Your task to perform on an android device: find which apps use the phone's location Image 0: 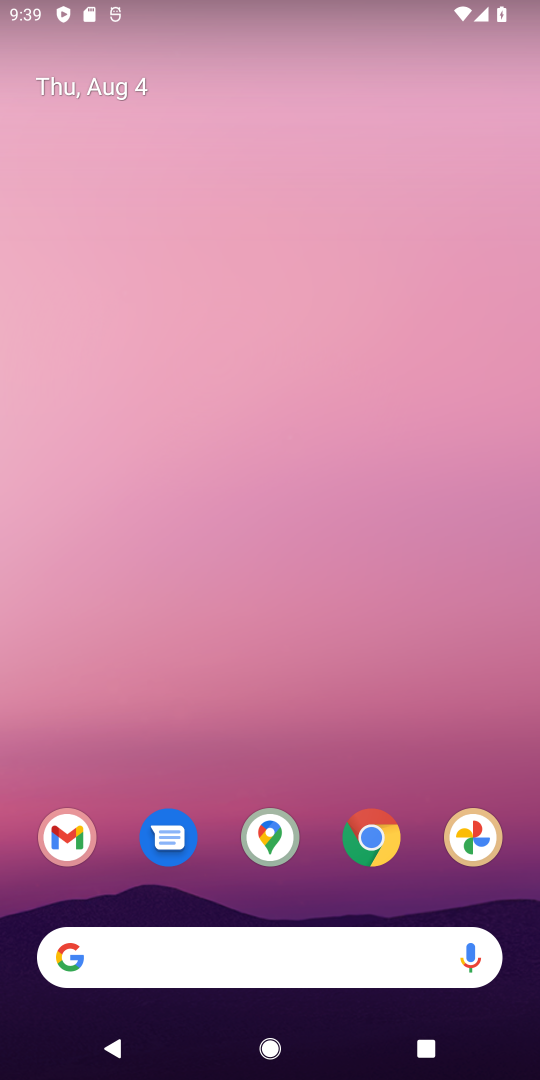
Step 0: drag from (462, 791) to (213, 47)
Your task to perform on an android device: find which apps use the phone's location Image 1: 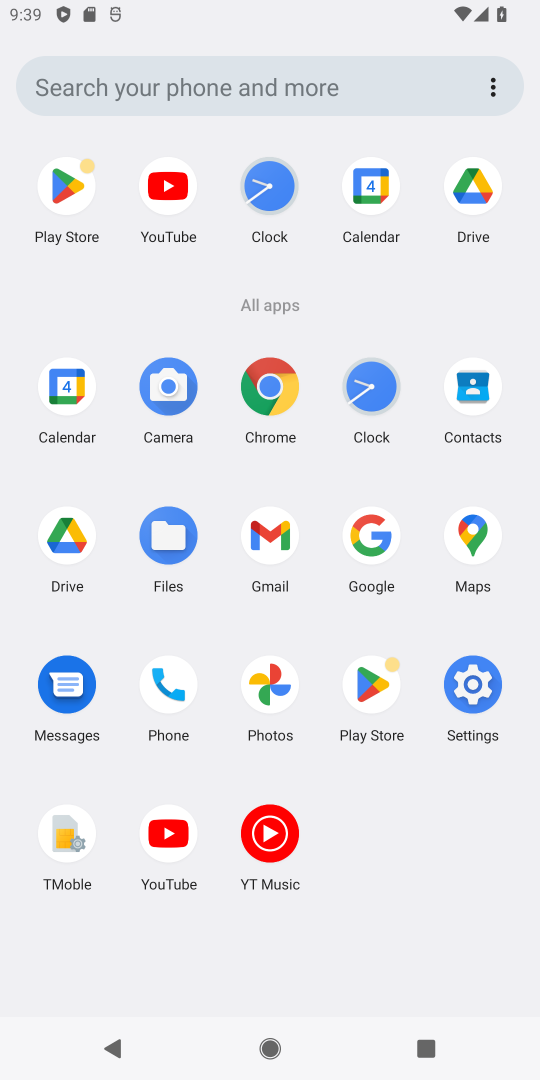
Step 1: click (467, 692)
Your task to perform on an android device: find which apps use the phone's location Image 2: 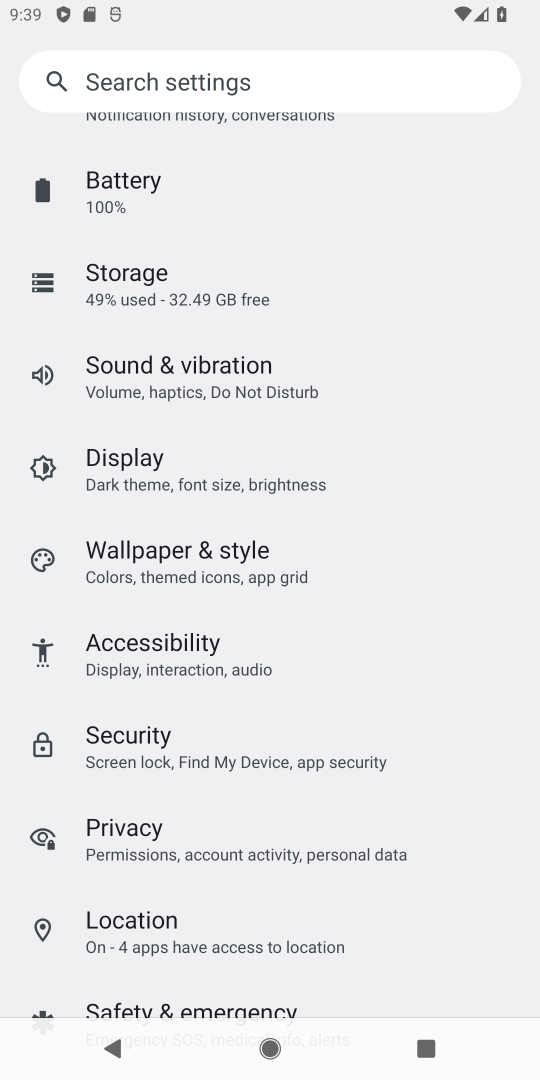
Step 2: click (148, 952)
Your task to perform on an android device: find which apps use the phone's location Image 3: 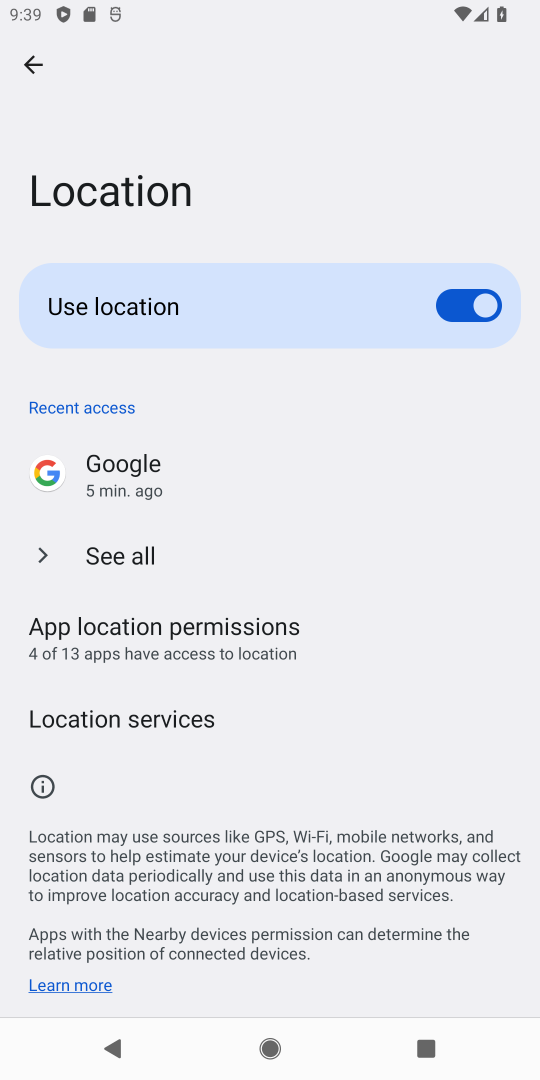
Step 3: click (216, 656)
Your task to perform on an android device: find which apps use the phone's location Image 4: 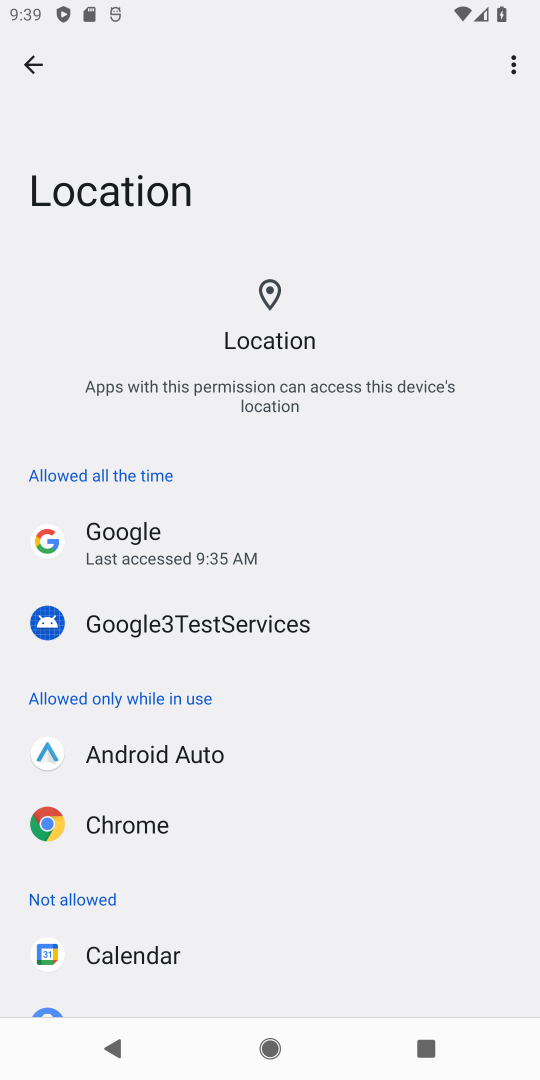
Step 4: drag from (127, 956) to (46, 371)
Your task to perform on an android device: find which apps use the phone's location Image 5: 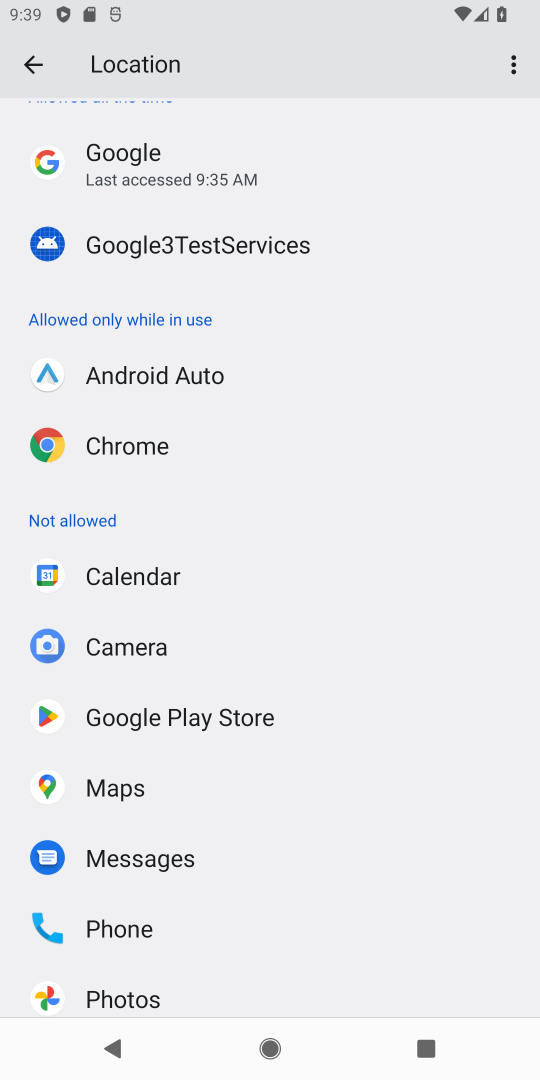
Step 5: click (90, 948)
Your task to perform on an android device: find which apps use the phone's location Image 6: 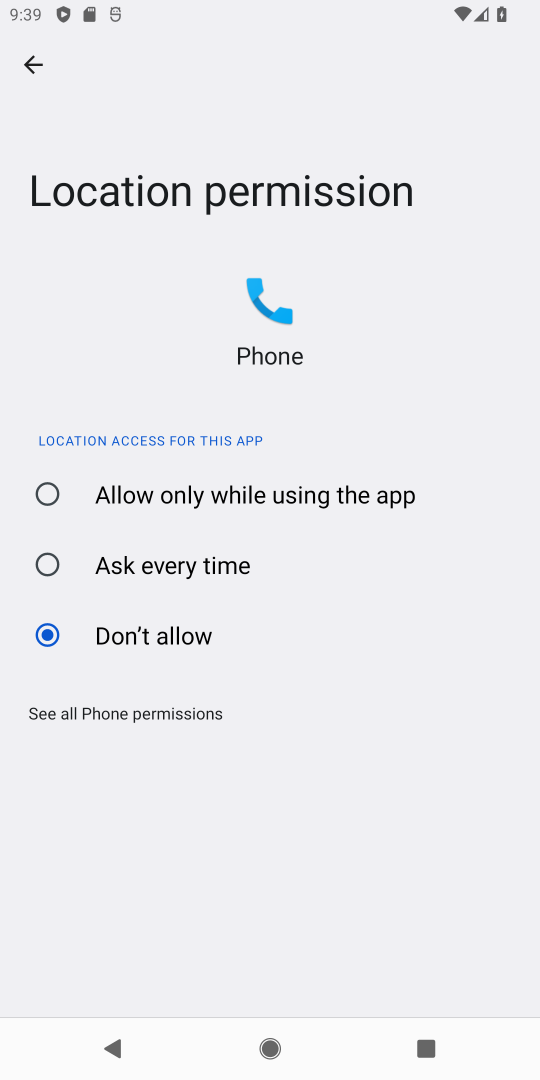
Step 6: click (46, 507)
Your task to perform on an android device: find which apps use the phone's location Image 7: 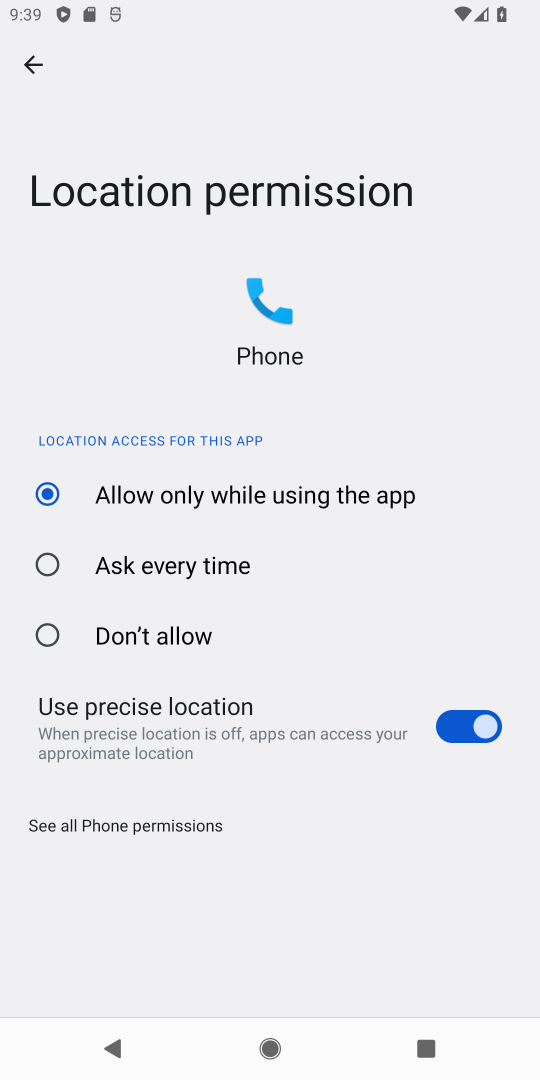
Step 7: task complete